Your task to perform on an android device: toggle pop-ups in chrome Image 0: 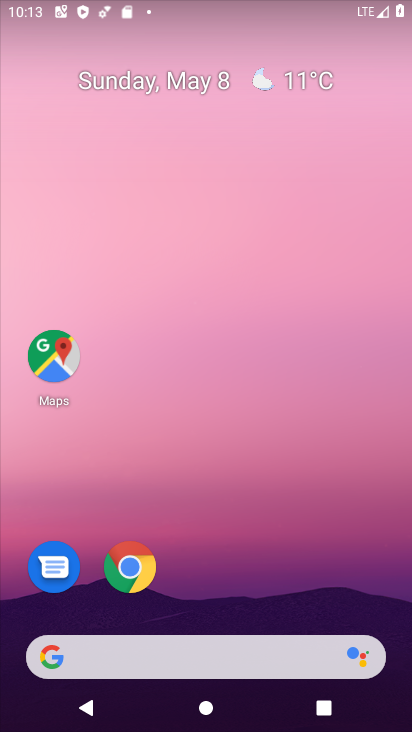
Step 0: click (146, 567)
Your task to perform on an android device: toggle pop-ups in chrome Image 1: 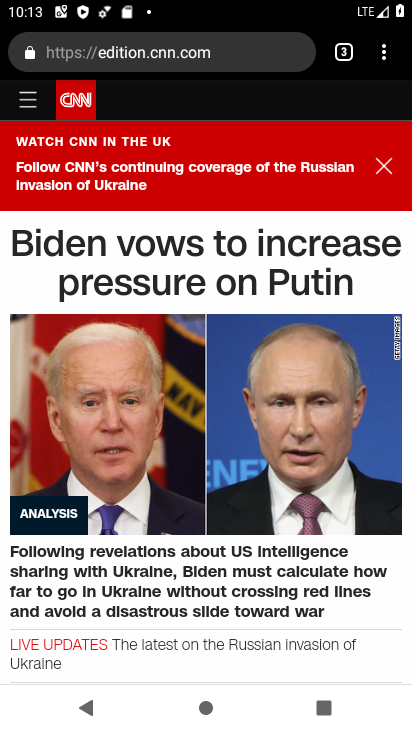
Step 1: drag from (391, 48) to (205, 602)
Your task to perform on an android device: toggle pop-ups in chrome Image 2: 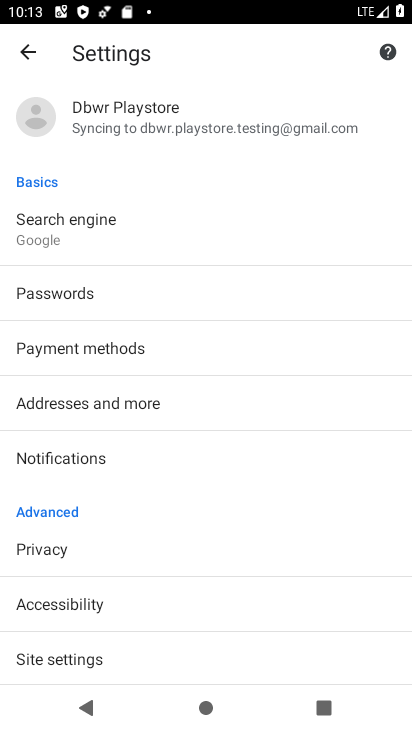
Step 2: click (78, 658)
Your task to perform on an android device: toggle pop-ups in chrome Image 3: 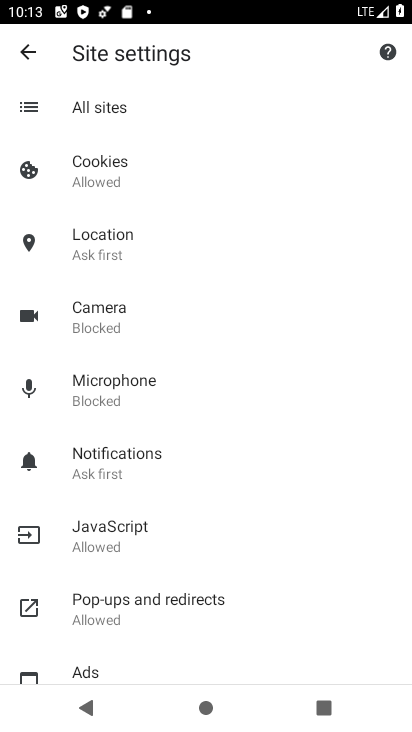
Step 3: click (111, 594)
Your task to perform on an android device: toggle pop-ups in chrome Image 4: 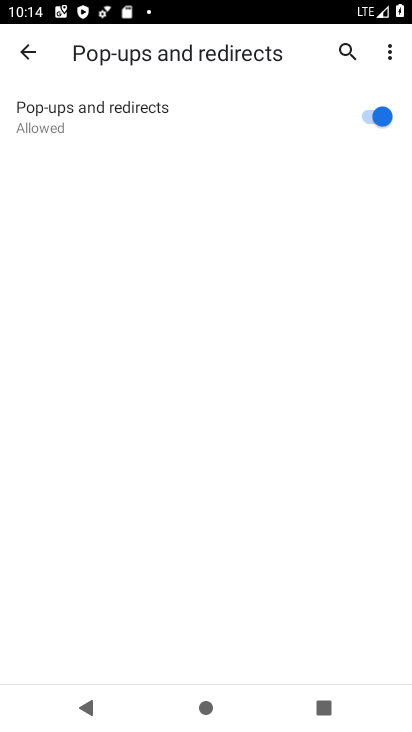
Step 4: click (374, 118)
Your task to perform on an android device: toggle pop-ups in chrome Image 5: 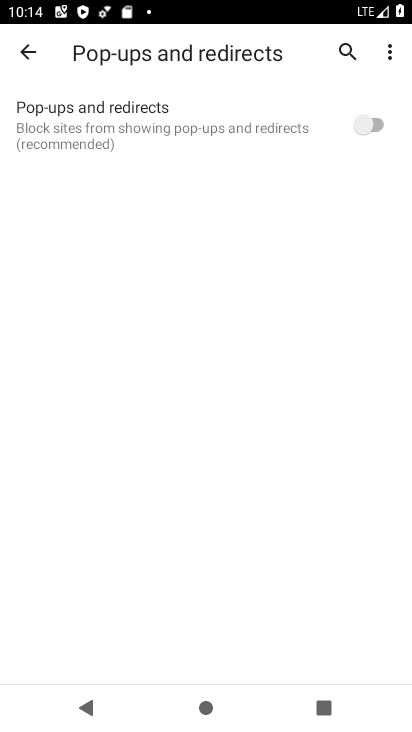
Step 5: task complete